Your task to perform on an android device: Add "razer deathadder" to the cart on newegg, then select checkout. Image 0: 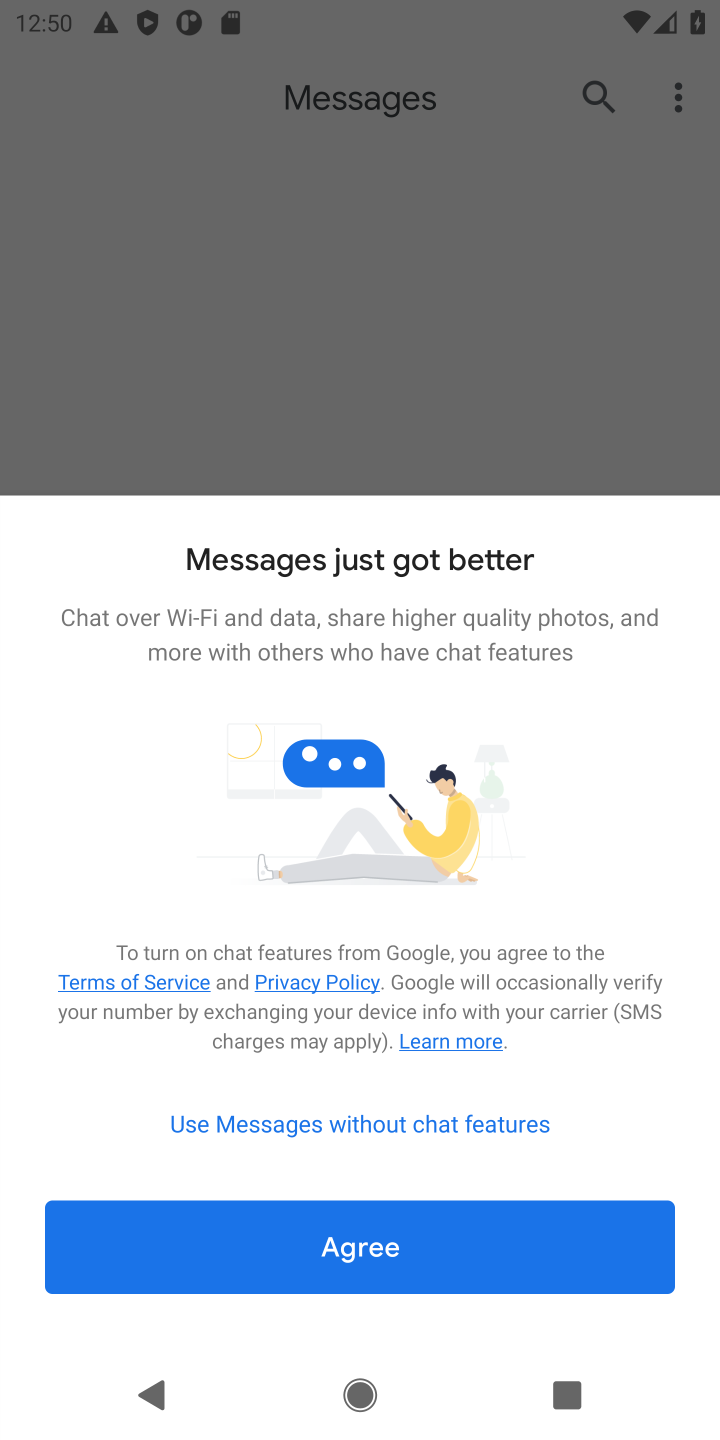
Step 0: press home button
Your task to perform on an android device: Add "razer deathadder" to the cart on newegg, then select checkout. Image 1: 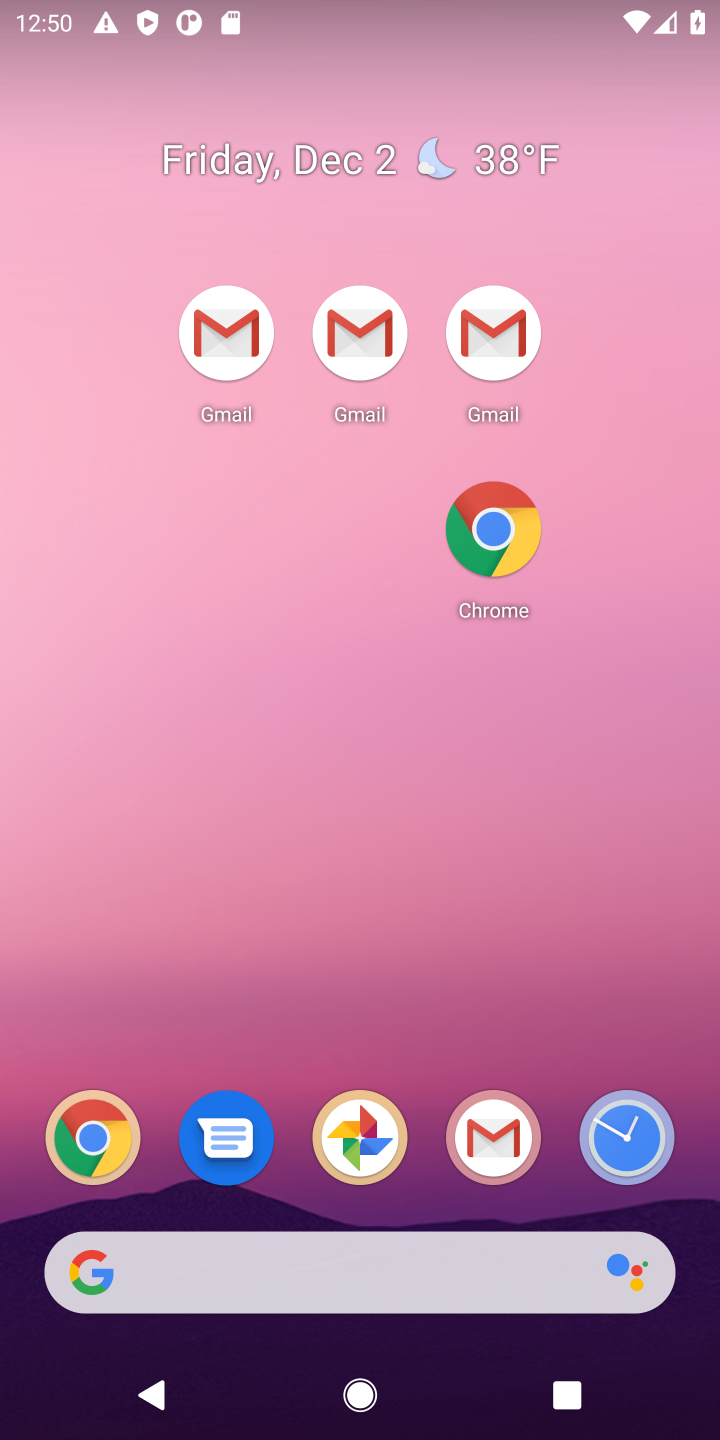
Step 1: drag from (375, 1228) to (439, 295)
Your task to perform on an android device: Add "razer deathadder" to the cart on newegg, then select checkout. Image 2: 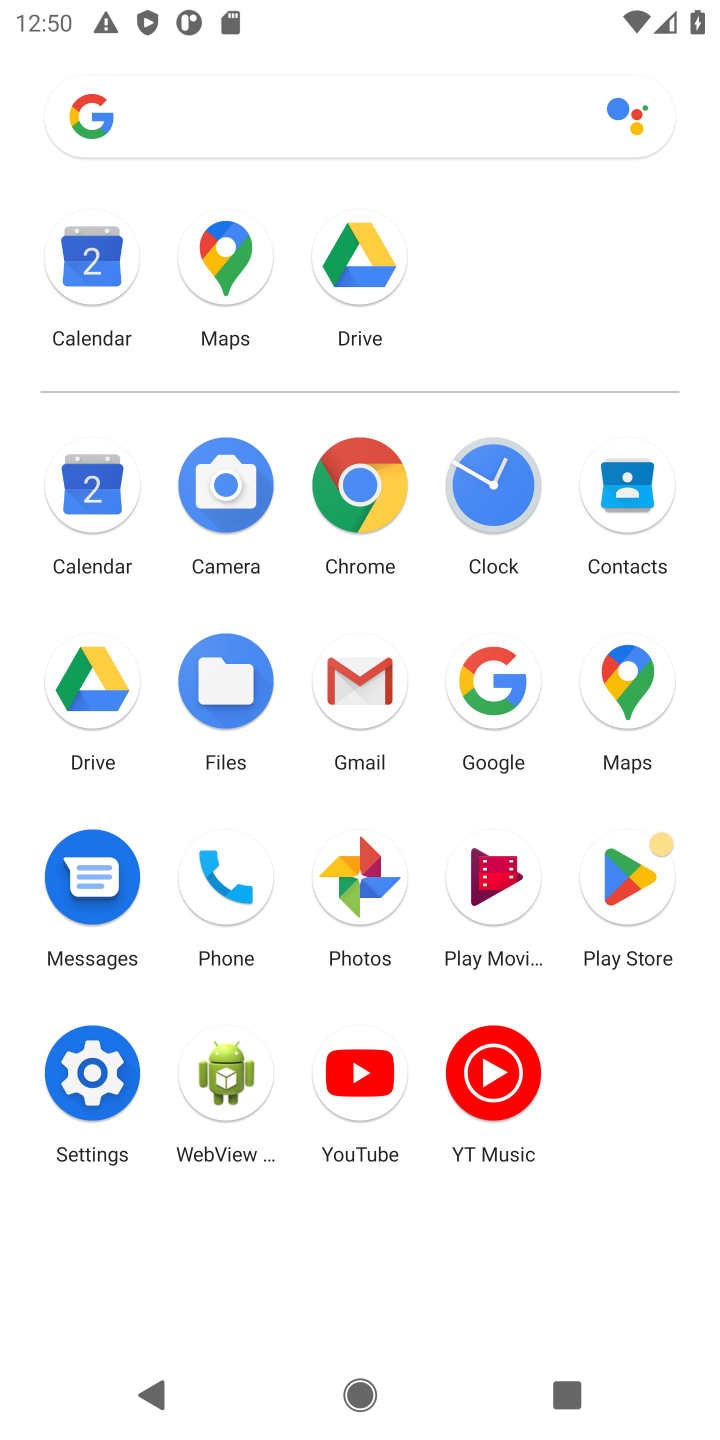
Step 2: click (506, 721)
Your task to perform on an android device: Add "razer deathadder" to the cart on newegg, then select checkout. Image 3: 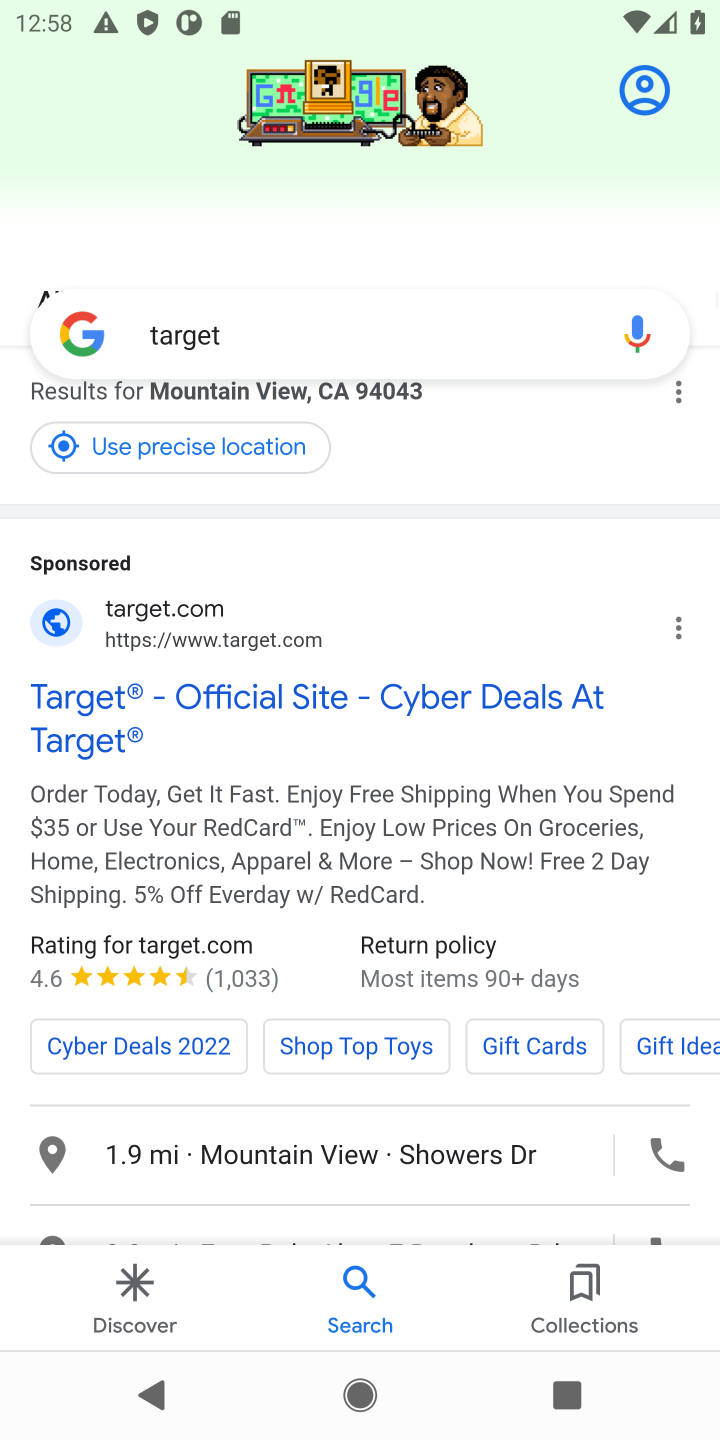
Step 3: click (483, 329)
Your task to perform on an android device: Add "razer deathadder" to the cart on newegg, then select checkout. Image 4: 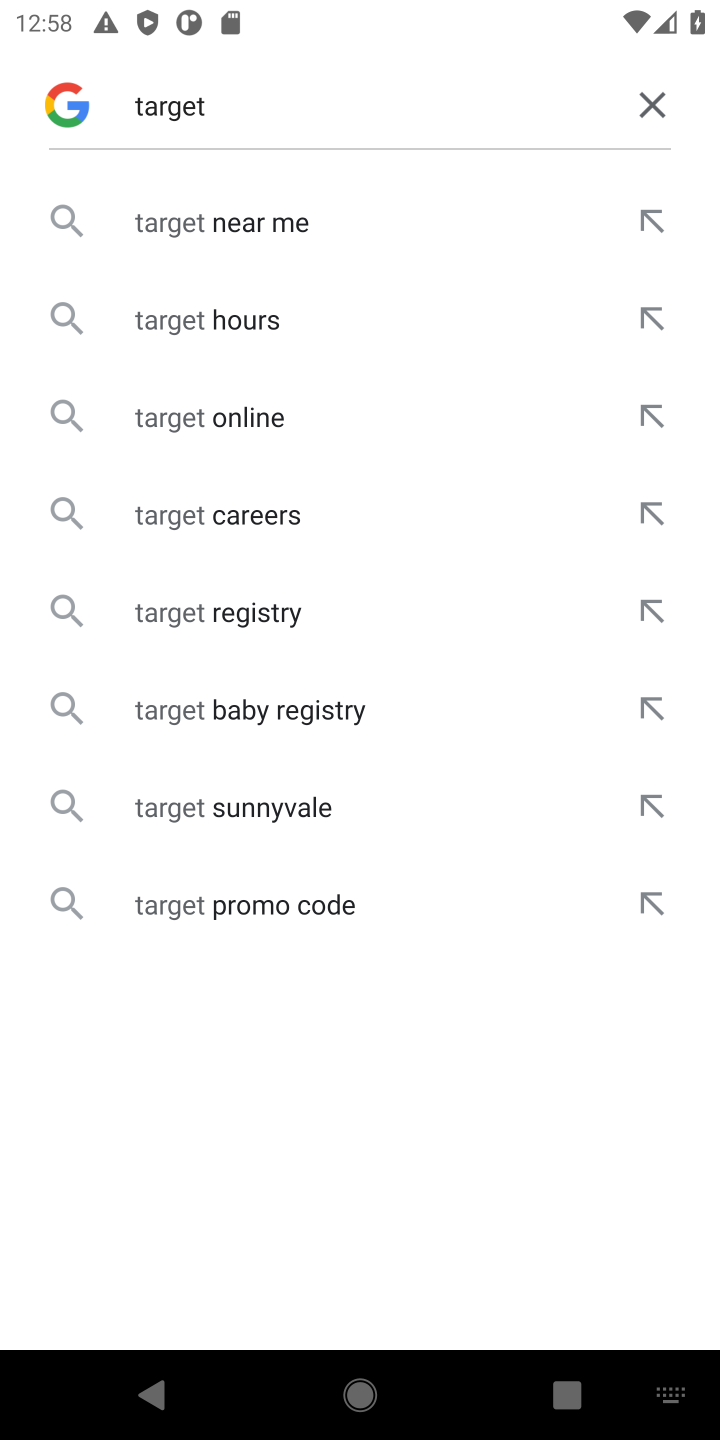
Step 4: click (643, 115)
Your task to perform on an android device: Add "razer deathadder" to the cart on newegg, then select checkout. Image 5: 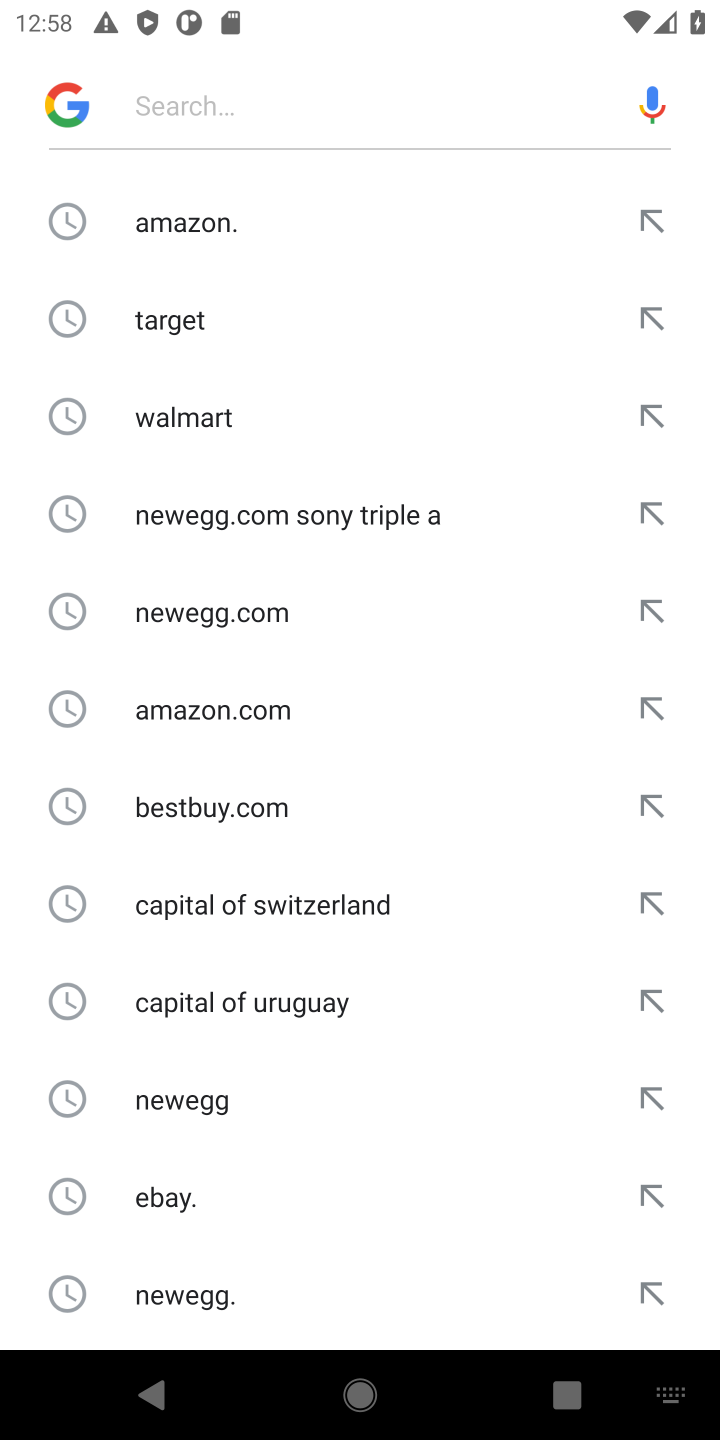
Step 5: type "newegg"
Your task to perform on an android device: Add "razer deathadder" to the cart on newegg, then select checkout. Image 6: 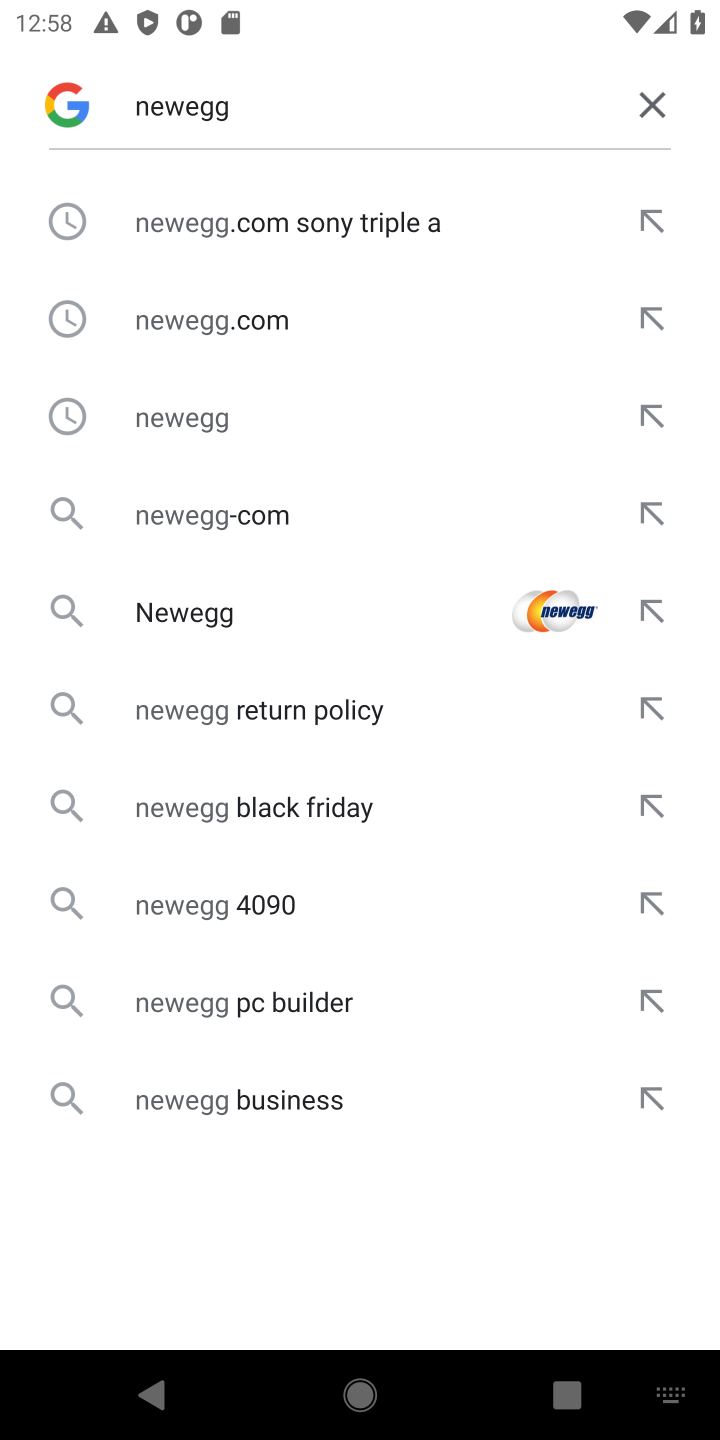
Step 6: click (223, 323)
Your task to perform on an android device: Add "razer deathadder" to the cart on newegg, then select checkout. Image 7: 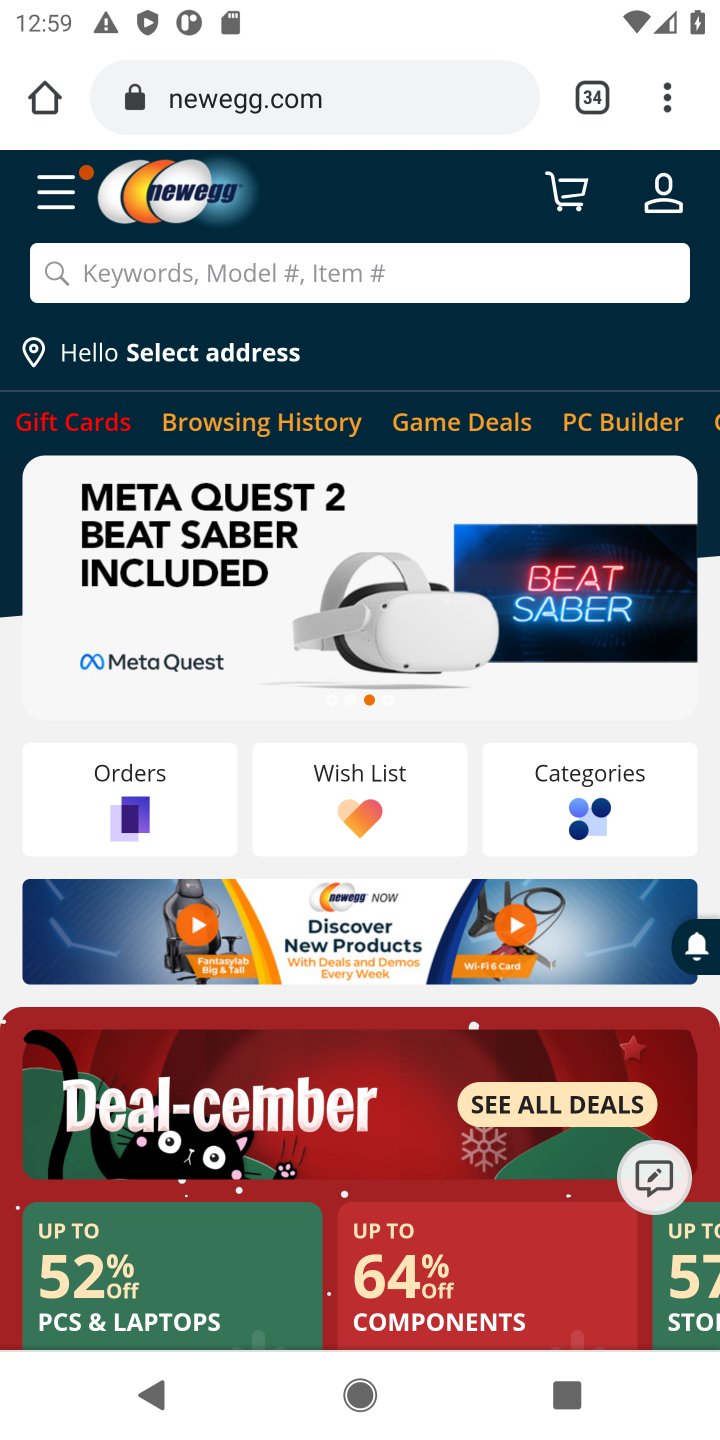
Step 7: click (145, 271)
Your task to perform on an android device: Add "razer deathadder" to the cart on newegg, then select checkout. Image 8: 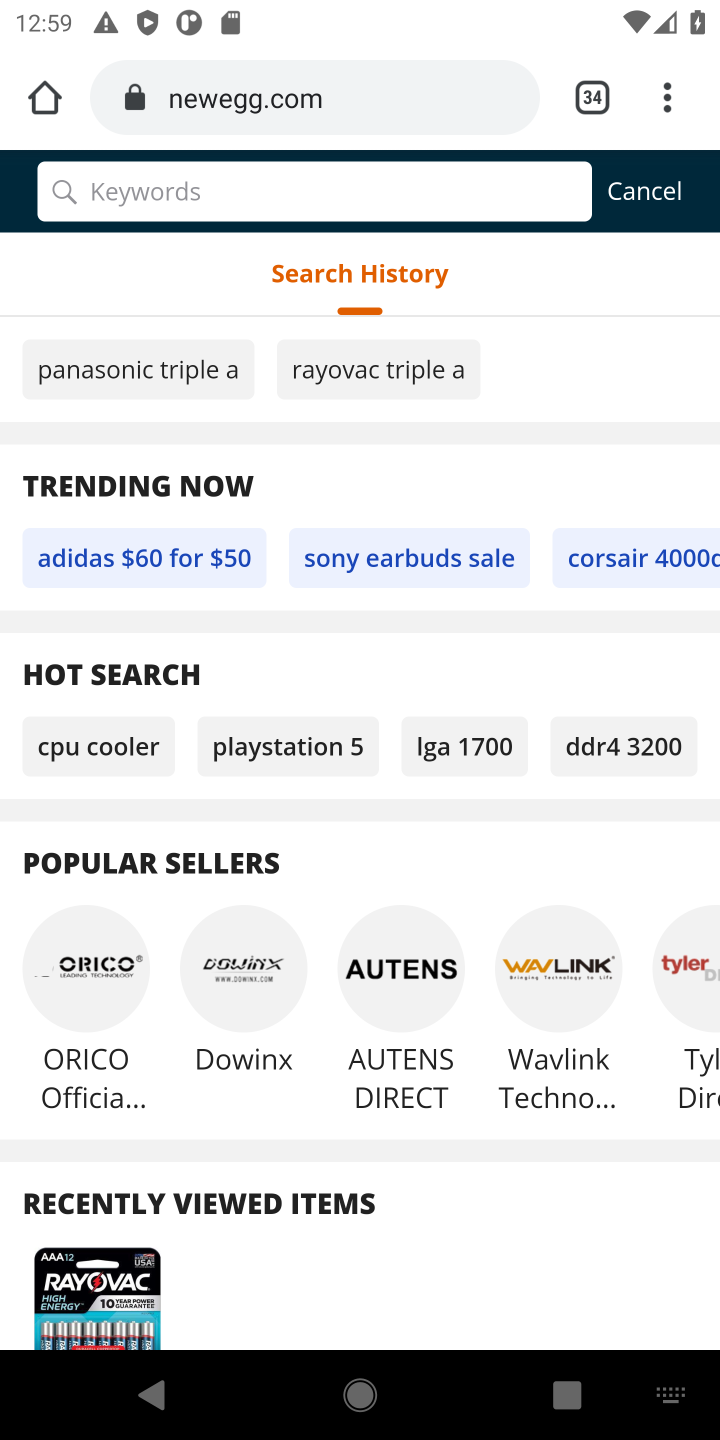
Step 8: type "razer deathadder"
Your task to perform on an android device: Add "razer deathadder" to the cart on newegg, then select checkout. Image 9: 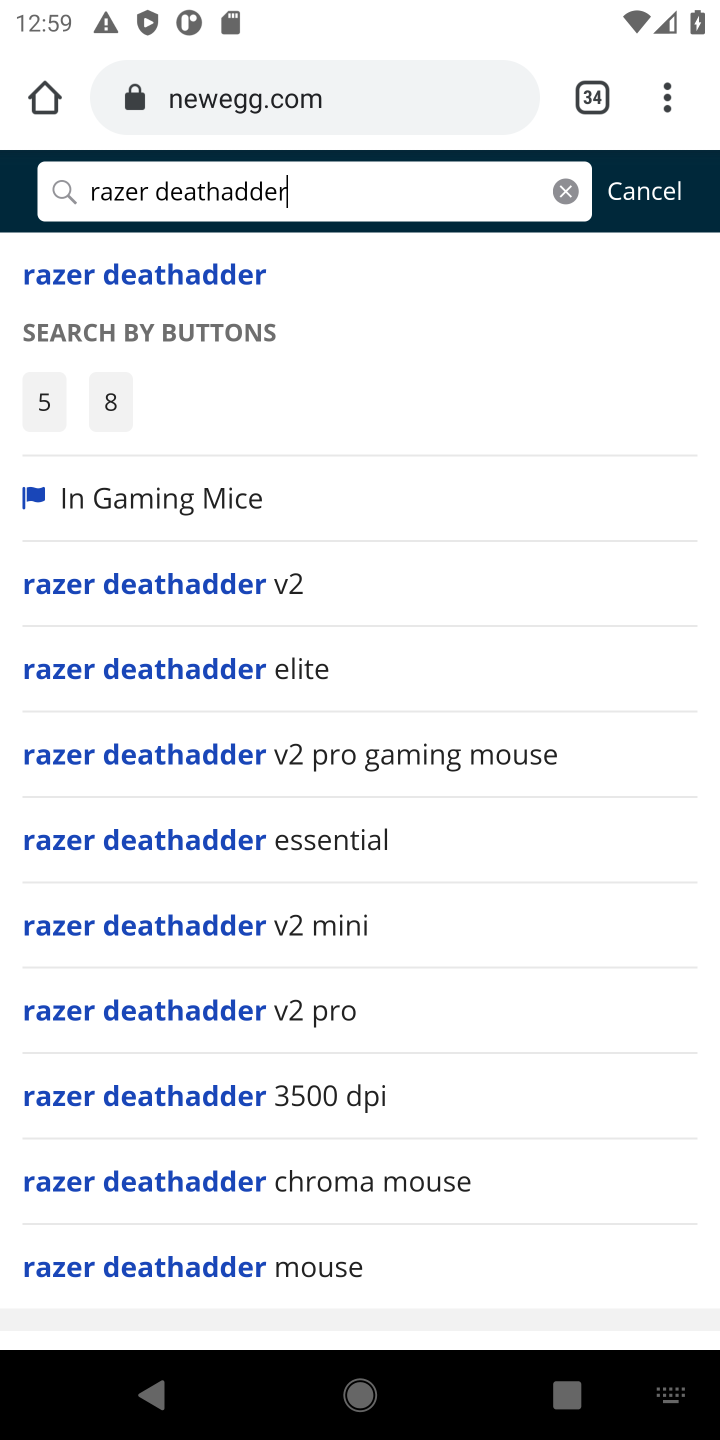
Step 9: click (237, 275)
Your task to perform on an android device: Add "razer deathadder" to the cart on newegg, then select checkout. Image 10: 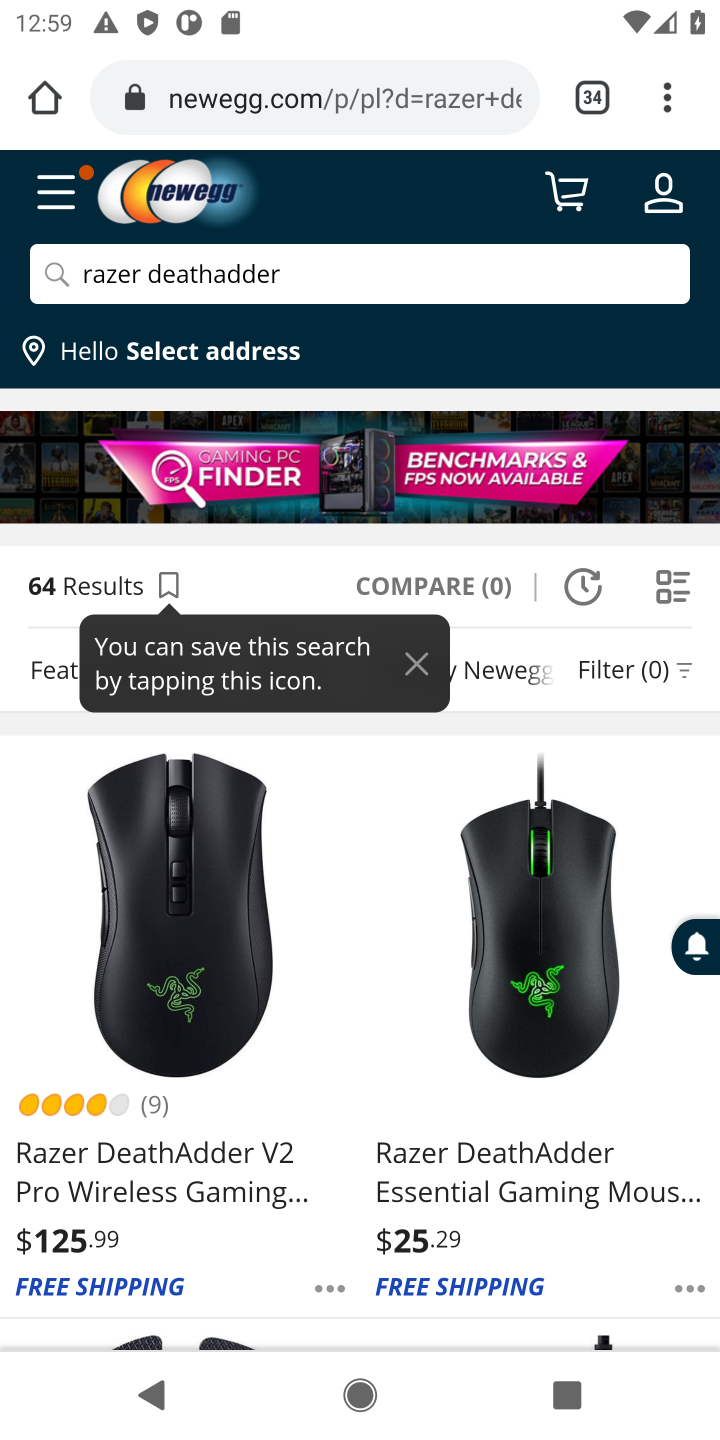
Step 10: click (179, 919)
Your task to perform on an android device: Add "razer deathadder" to the cart on newegg, then select checkout. Image 11: 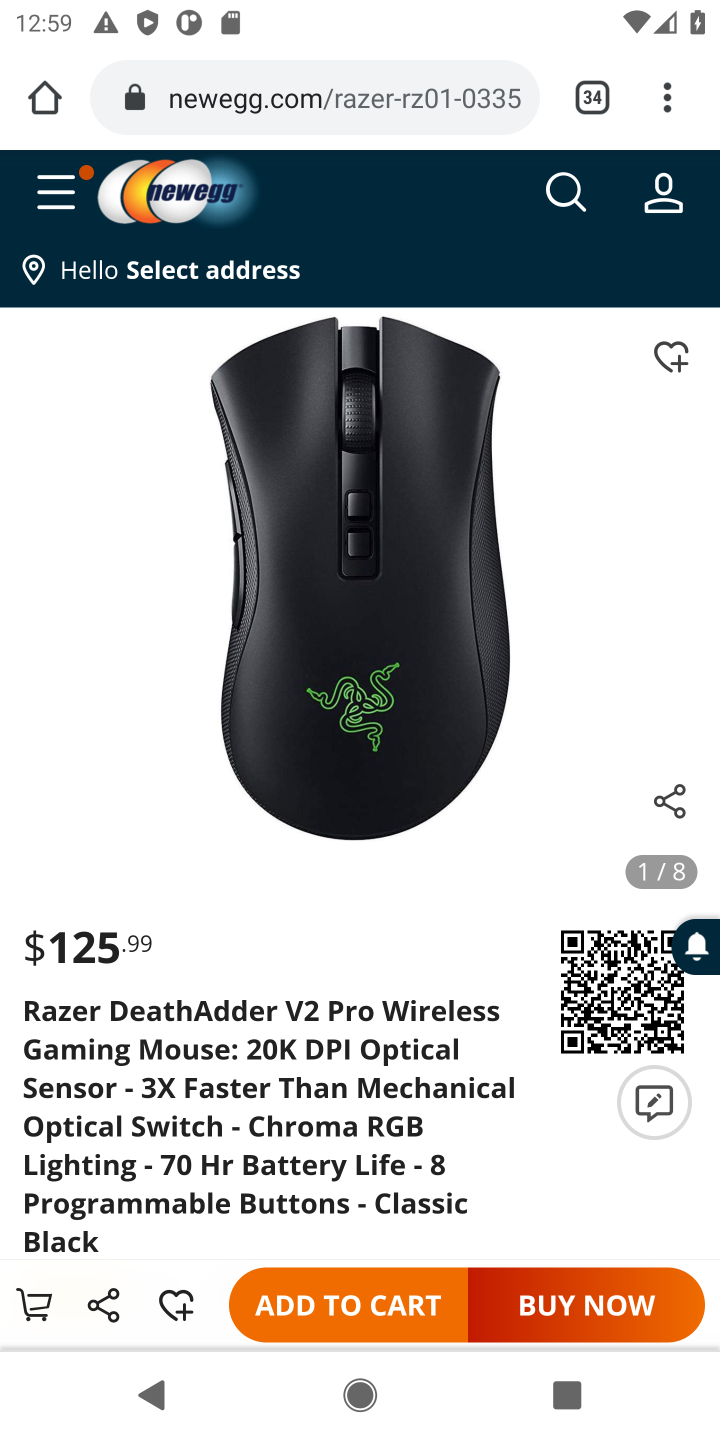
Step 11: click (399, 1335)
Your task to perform on an android device: Add "razer deathadder" to the cart on newegg, then select checkout. Image 12: 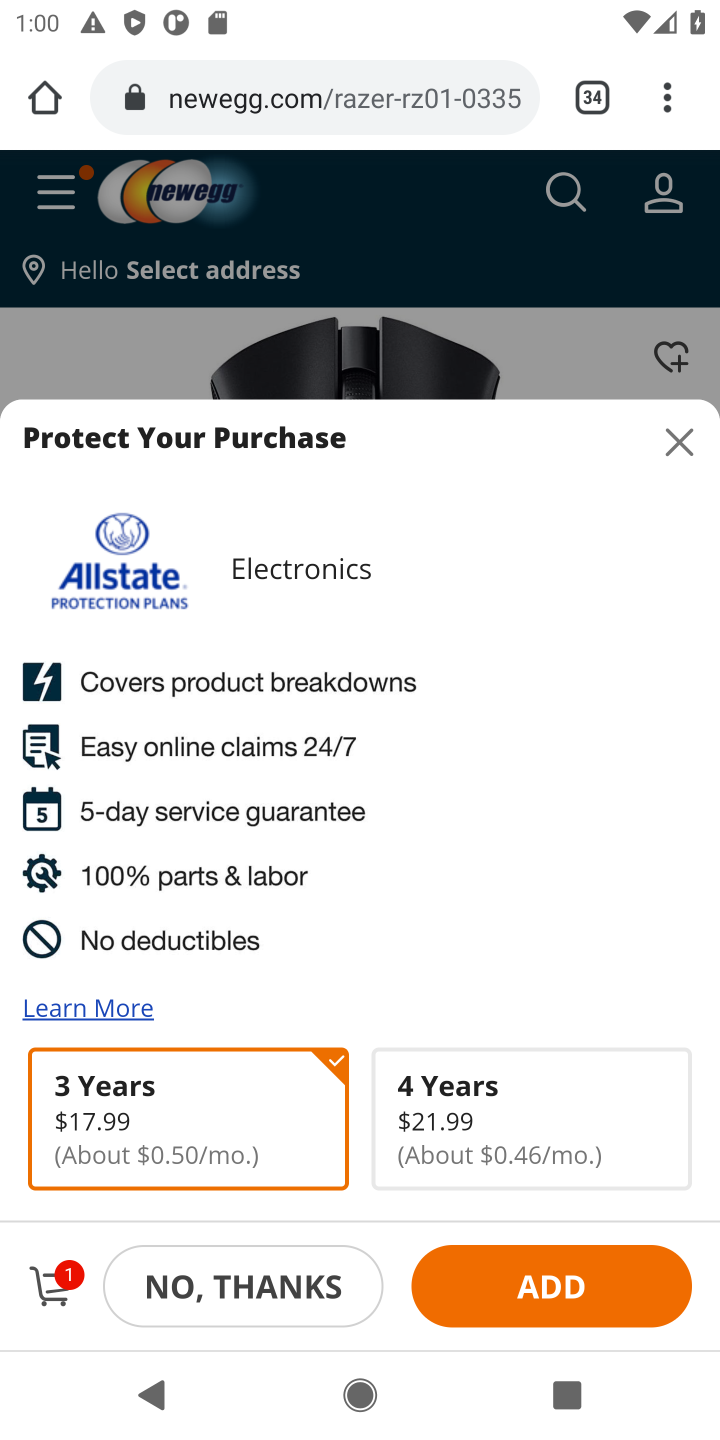
Step 12: click (264, 1284)
Your task to perform on an android device: Add "razer deathadder" to the cart on newegg, then select checkout. Image 13: 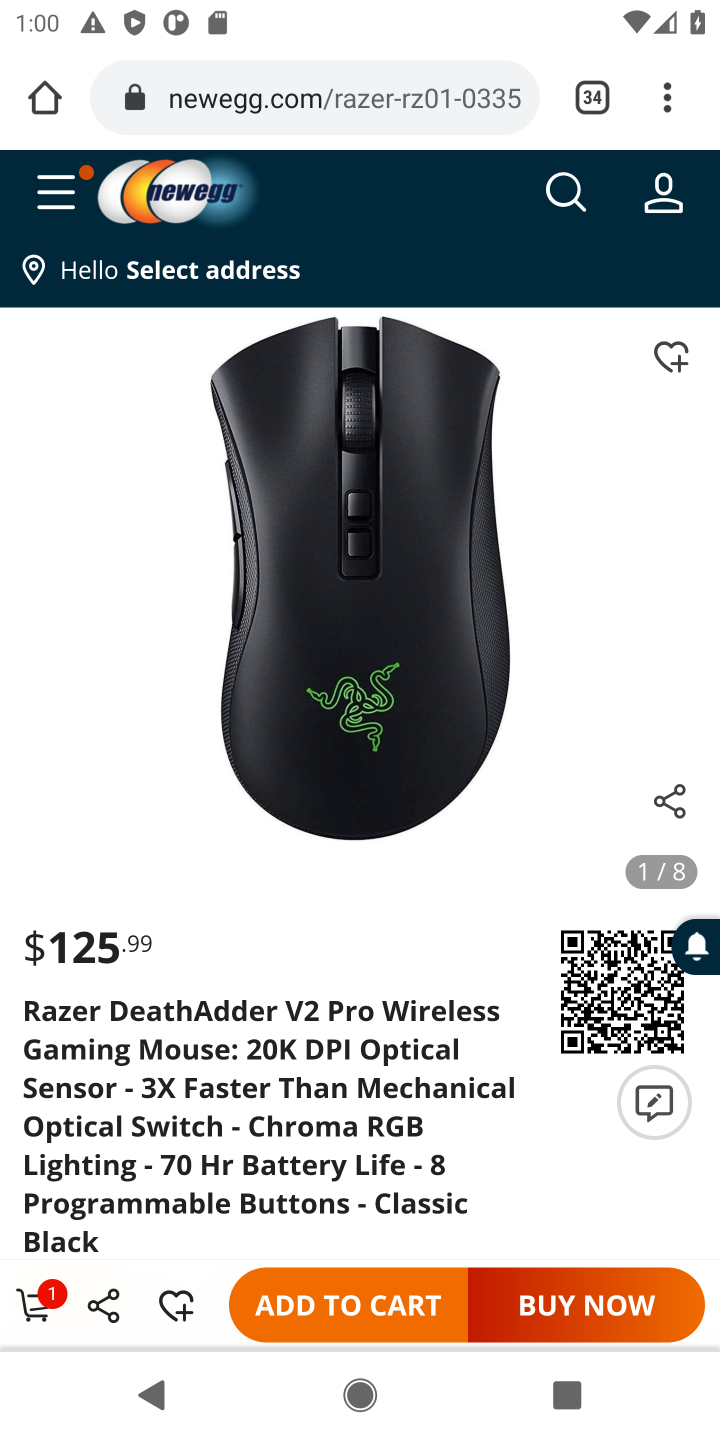
Step 13: click (37, 1294)
Your task to perform on an android device: Add "razer deathadder" to the cart on newegg, then select checkout. Image 14: 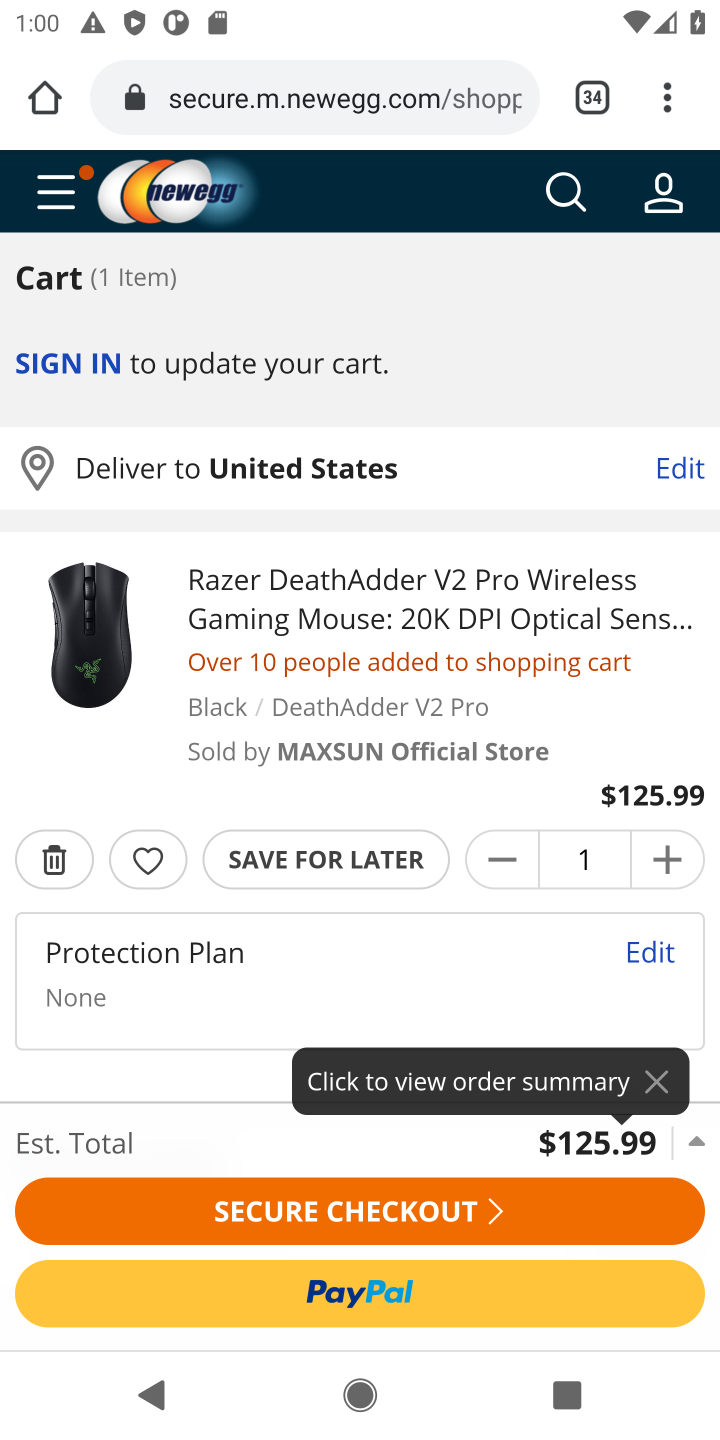
Step 14: click (216, 1222)
Your task to perform on an android device: Add "razer deathadder" to the cart on newegg, then select checkout. Image 15: 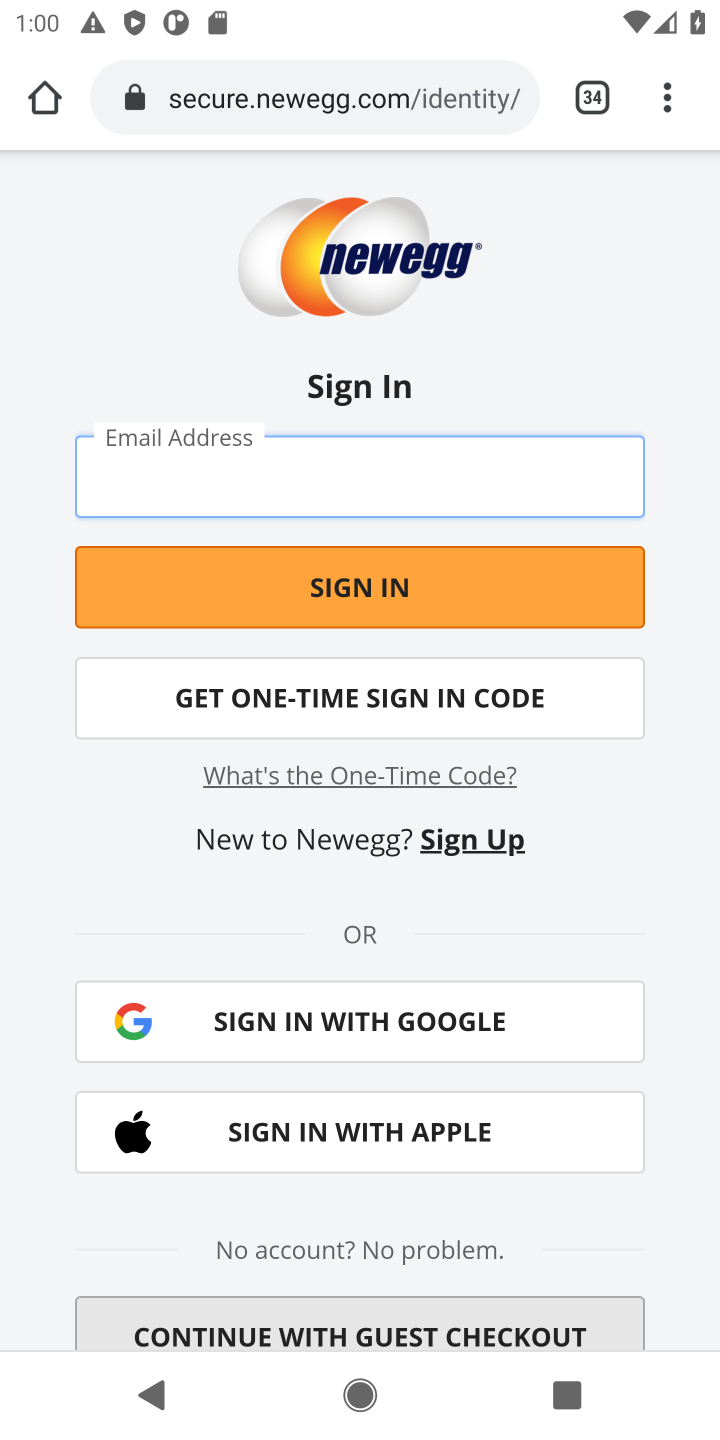
Step 15: task complete